Your task to perform on an android device: turn on notifications settings in the gmail app Image 0: 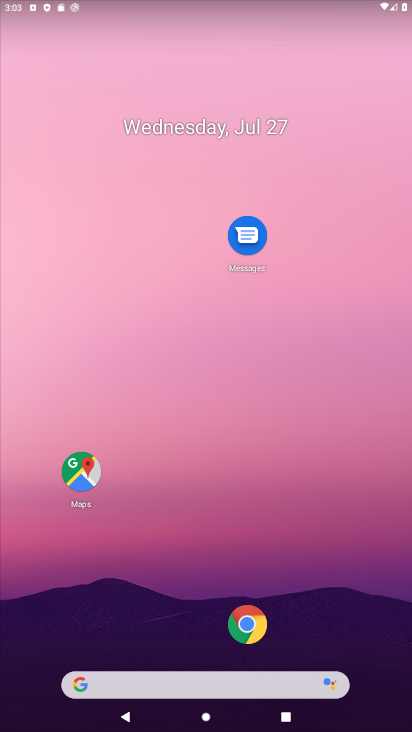
Step 0: drag from (165, 643) to (172, 164)
Your task to perform on an android device: turn on notifications settings in the gmail app Image 1: 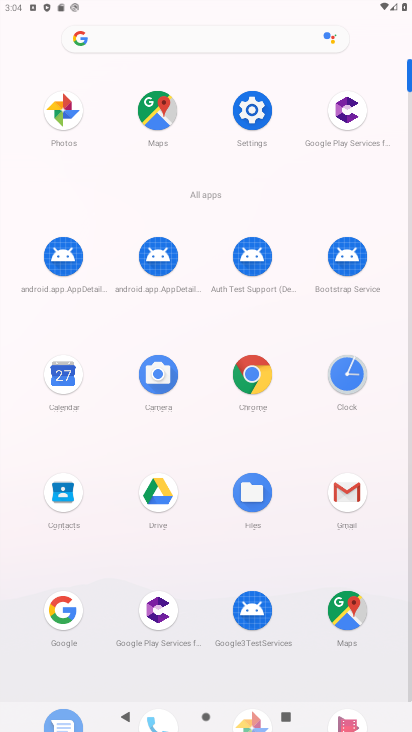
Step 1: click (338, 484)
Your task to perform on an android device: turn on notifications settings in the gmail app Image 2: 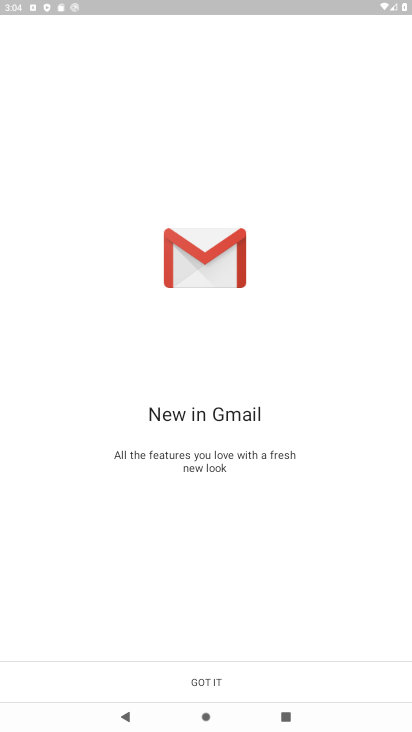
Step 2: click (183, 687)
Your task to perform on an android device: turn on notifications settings in the gmail app Image 3: 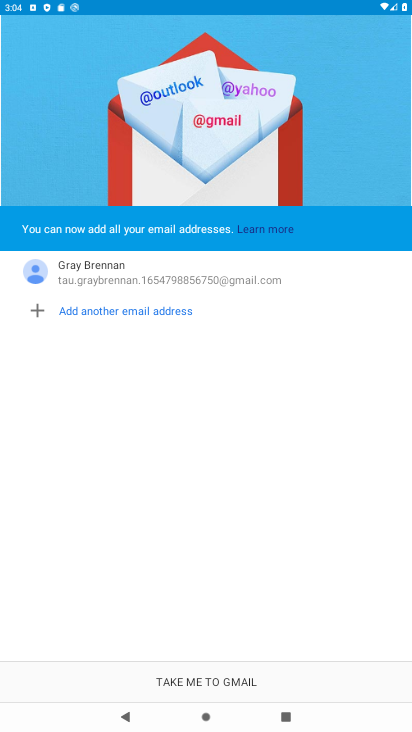
Step 3: click (168, 678)
Your task to perform on an android device: turn on notifications settings in the gmail app Image 4: 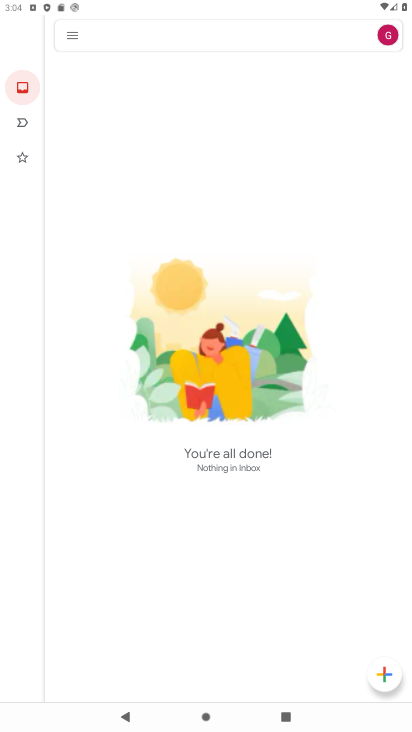
Step 4: click (72, 43)
Your task to perform on an android device: turn on notifications settings in the gmail app Image 5: 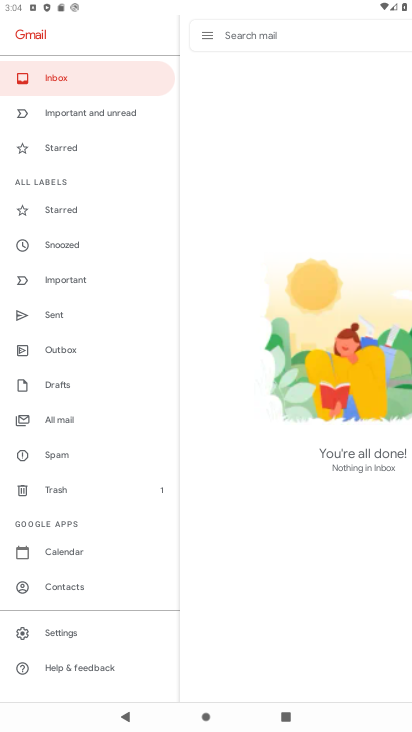
Step 5: click (54, 636)
Your task to perform on an android device: turn on notifications settings in the gmail app Image 6: 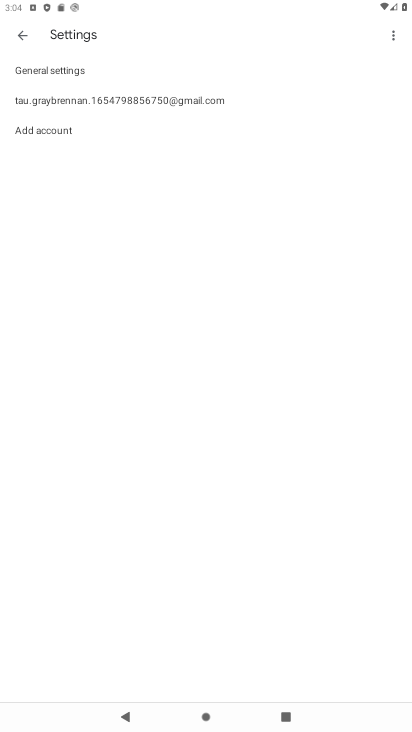
Step 6: click (174, 108)
Your task to perform on an android device: turn on notifications settings in the gmail app Image 7: 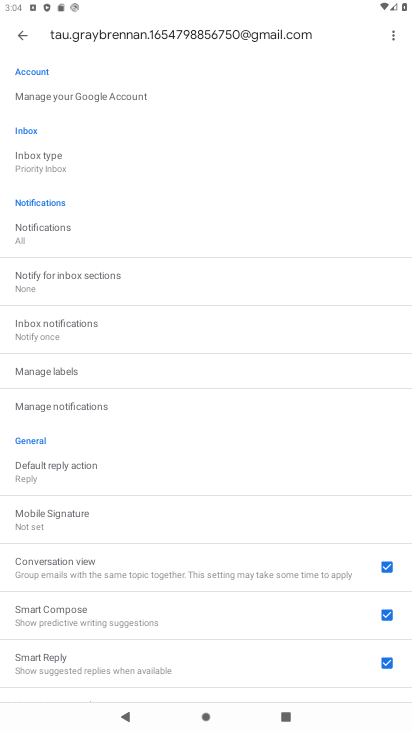
Step 7: click (121, 248)
Your task to perform on an android device: turn on notifications settings in the gmail app Image 8: 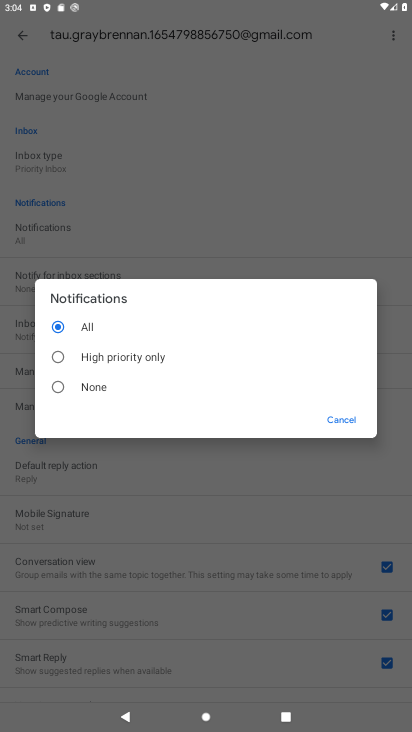
Step 8: task complete